Your task to perform on an android device: When is my next appointment? Image 0: 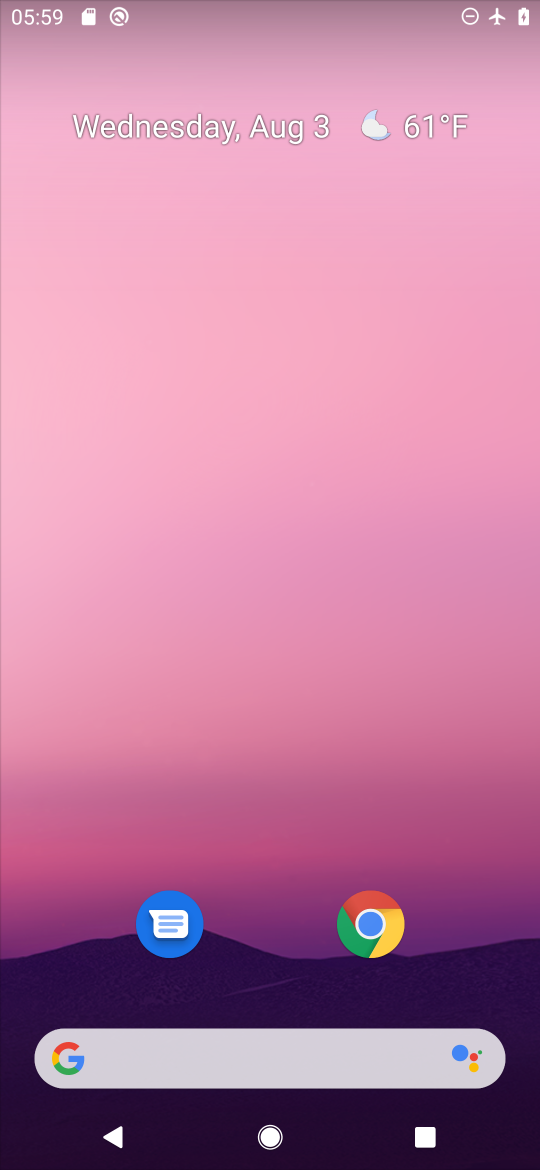
Step 0: drag from (265, 995) to (271, 394)
Your task to perform on an android device: When is my next appointment? Image 1: 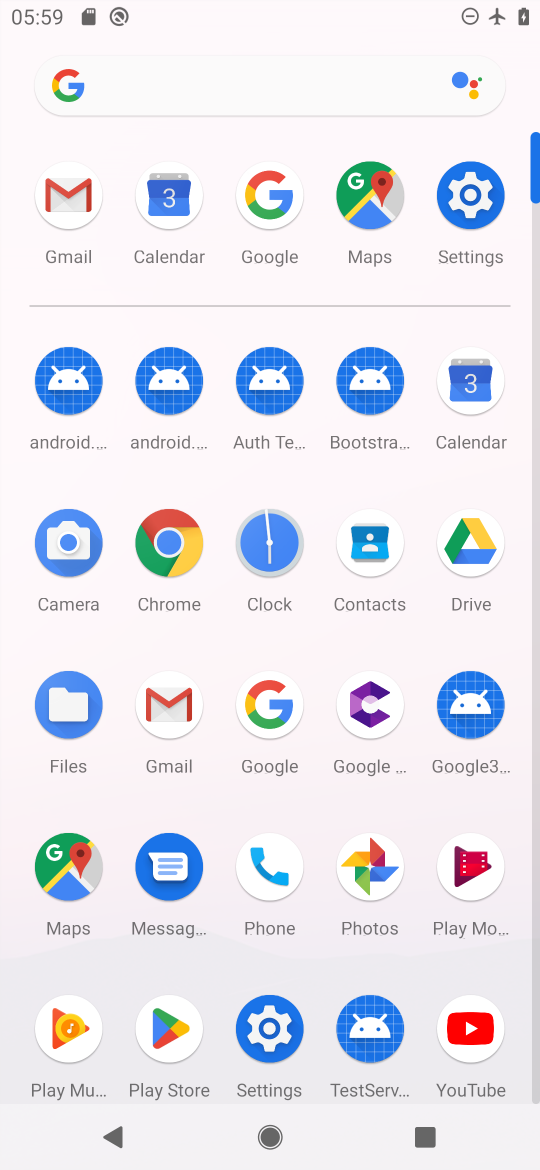
Step 1: click (469, 405)
Your task to perform on an android device: When is my next appointment? Image 2: 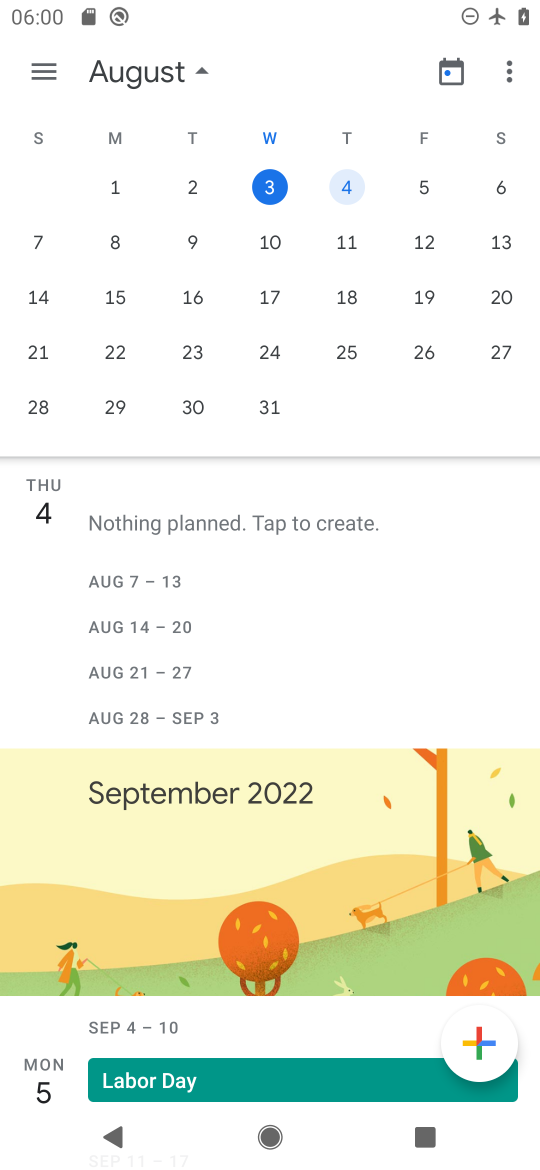
Step 2: click (332, 195)
Your task to perform on an android device: When is my next appointment? Image 3: 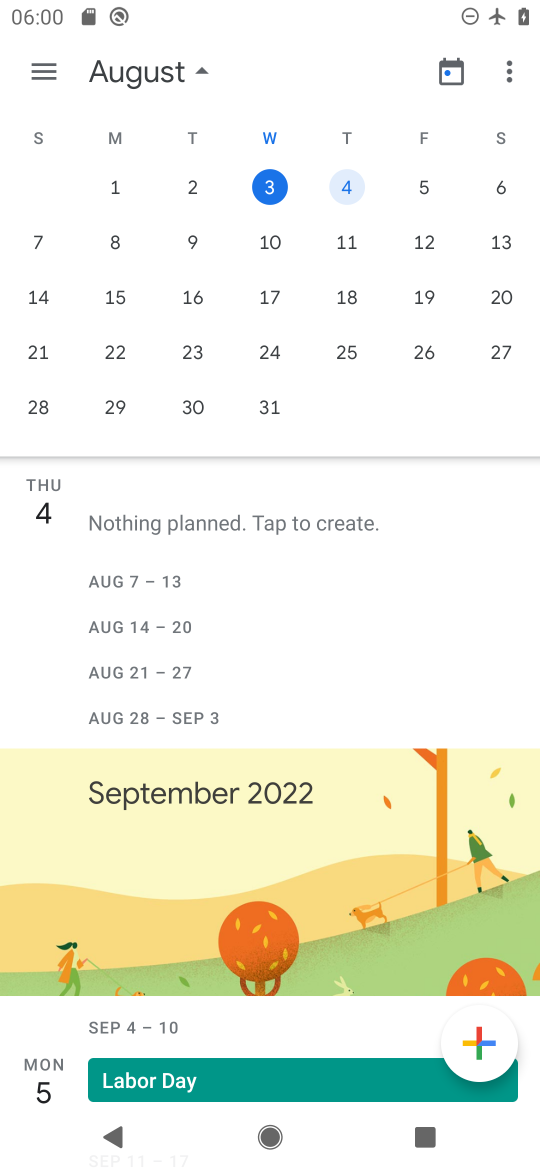
Step 3: click (398, 189)
Your task to perform on an android device: When is my next appointment? Image 4: 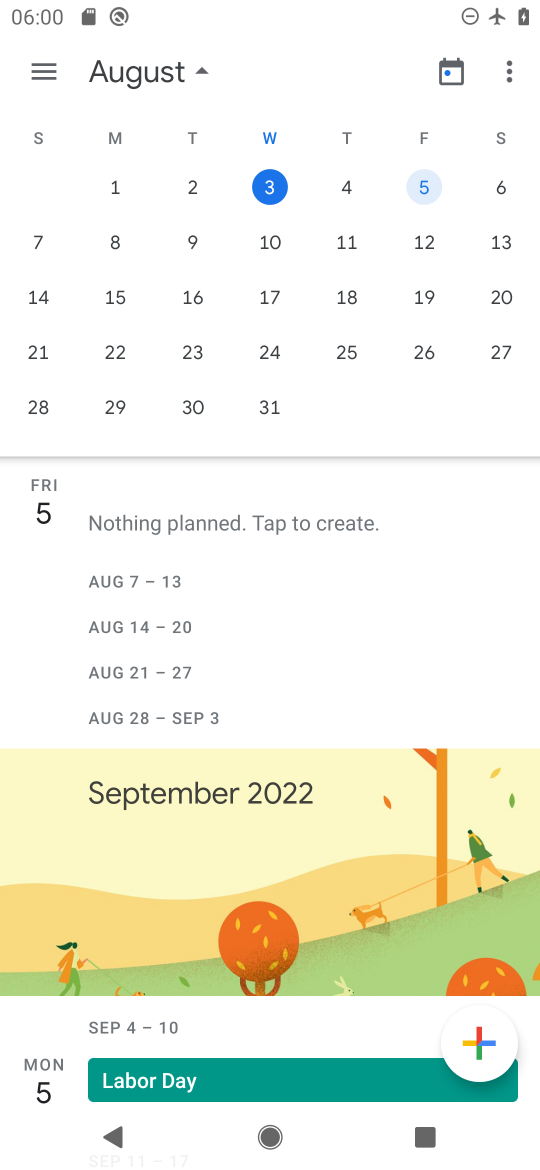
Step 4: click (509, 181)
Your task to perform on an android device: When is my next appointment? Image 5: 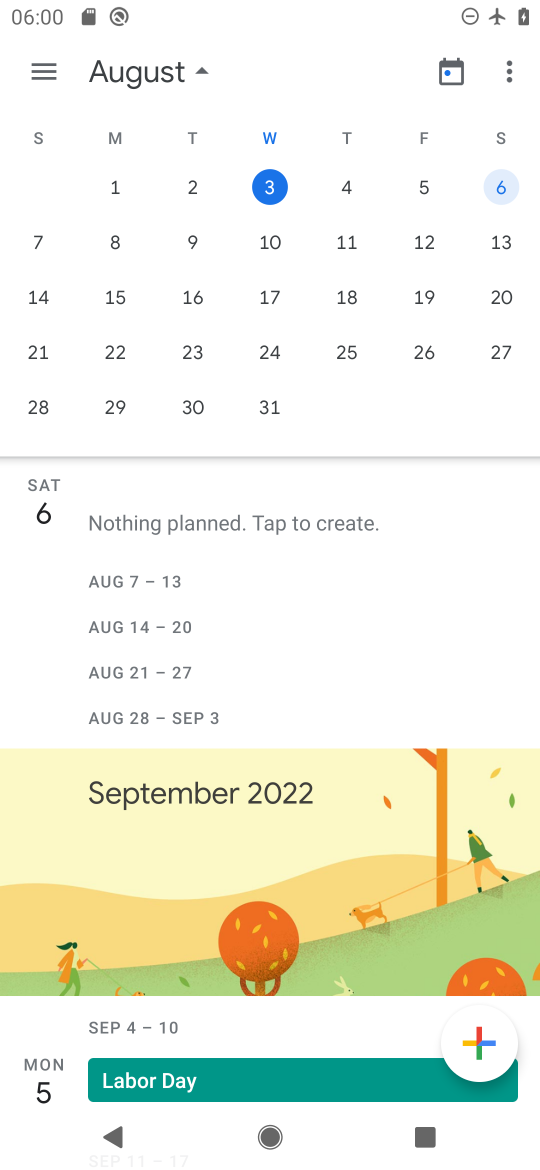
Step 5: click (72, 268)
Your task to perform on an android device: When is my next appointment? Image 6: 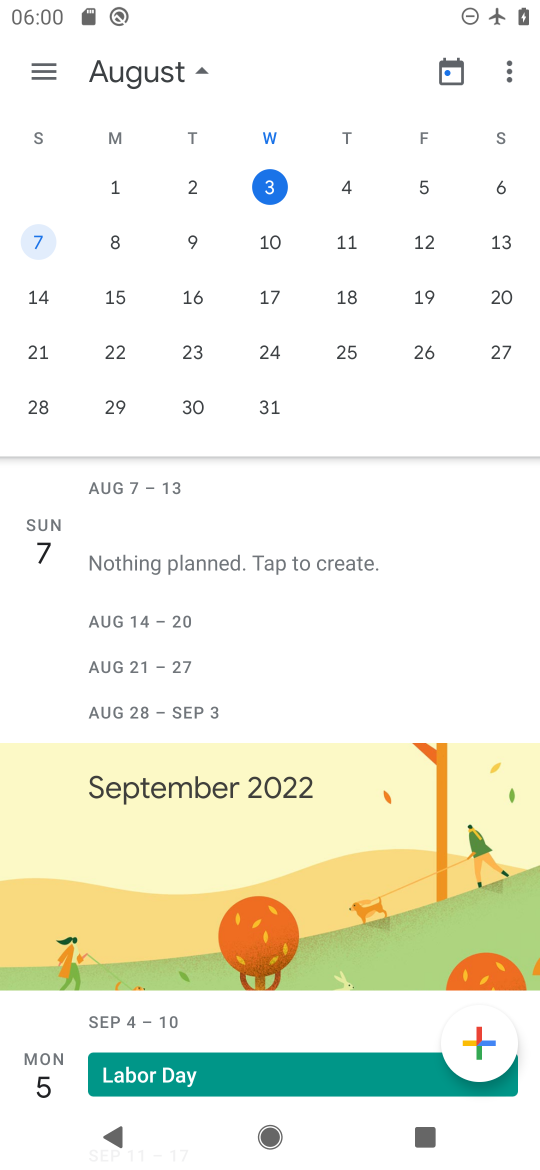
Step 6: task complete